Your task to perform on an android device: When is my next appointment? Image 0: 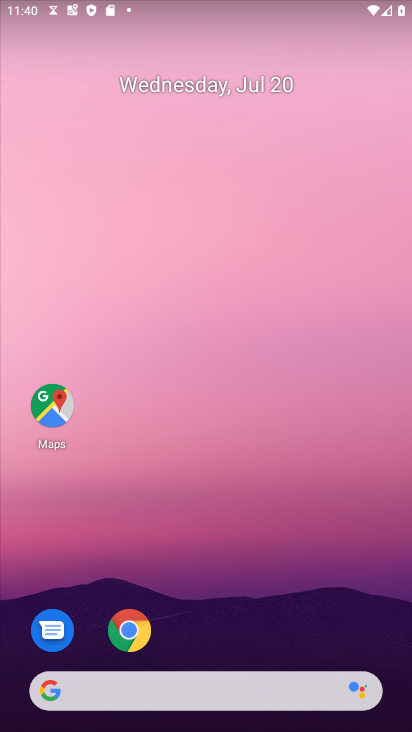
Step 0: drag from (26, 709) to (16, 313)
Your task to perform on an android device: When is my next appointment? Image 1: 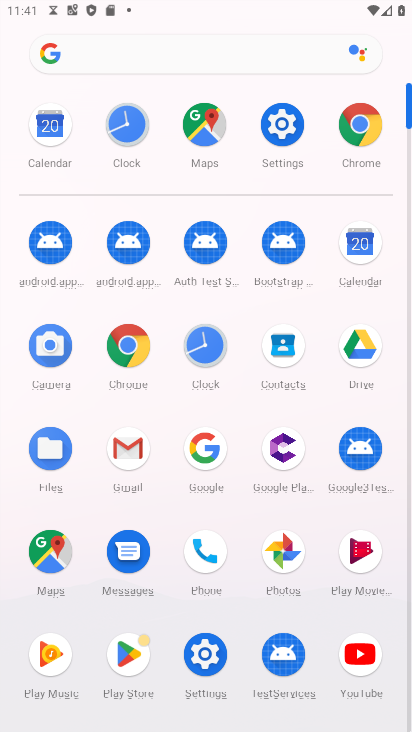
Step 1: click (353, 255)
Your task to perform on an android device: When is my next appointment? Image 2: 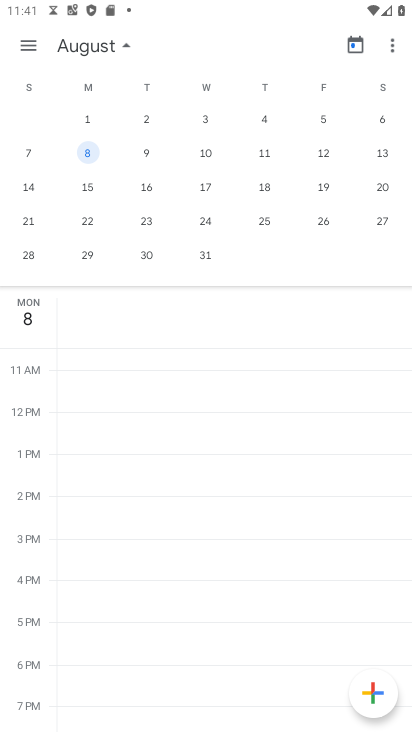
Step 2: drag from (13, 121) to (325, 104)
Your task to perform on an android device: When is my next appointment? Image 3: 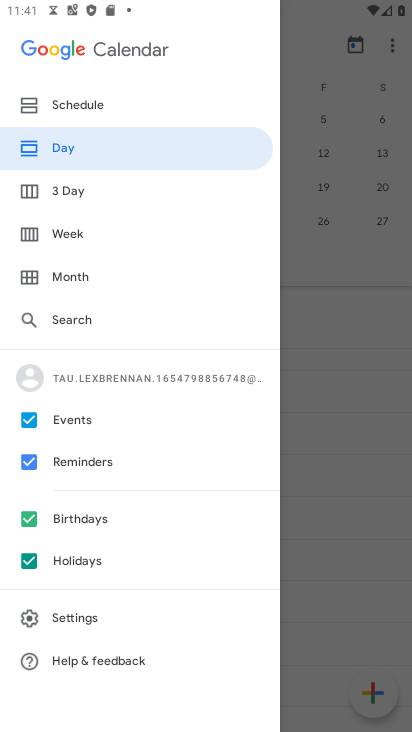
Step 3: click (359, 271)
Your task to perform on an android device: When is my next appointment? Image 4: 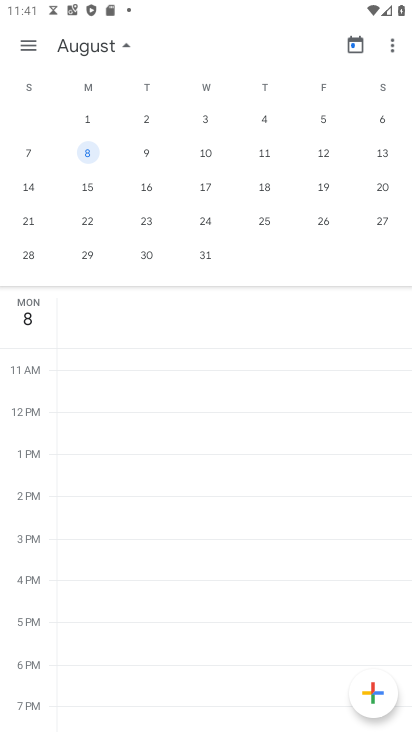
Step 4: drag from (14, 143) to (403, 127)
Your task to perform on an android device: When is my next appointment? Image 5: 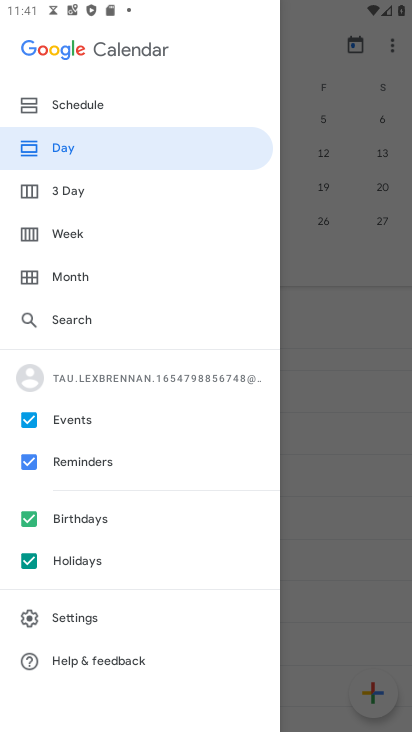
Step 5: click (362, 256)
Your task to perform on an android device: When is my next appointment? Image 6: 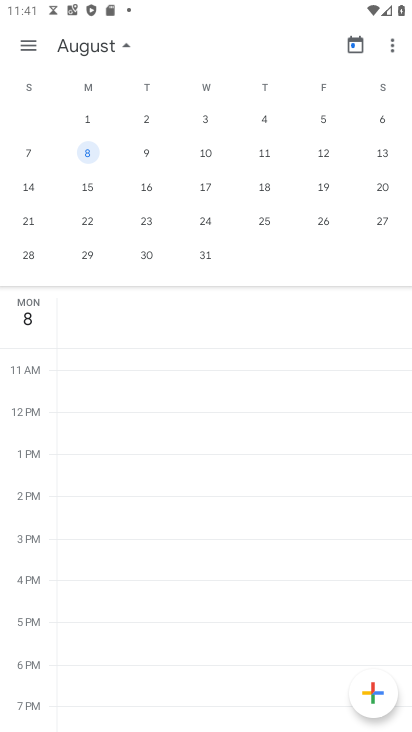
Step 6: task complete